Your task to perform on an android device: open device folders in google photos Image 0: 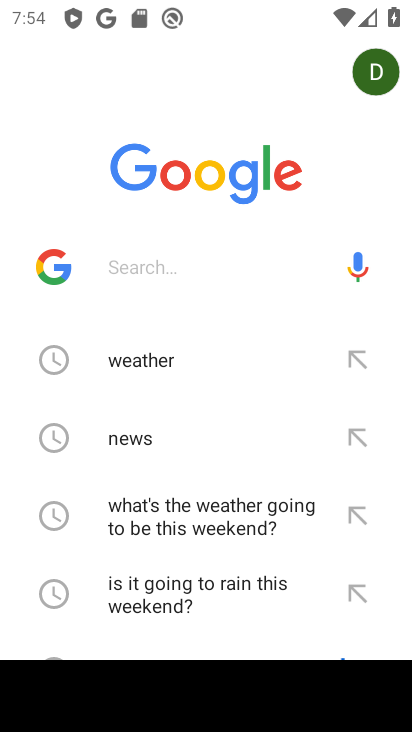
Step 0: press back button
Your task to perform on an android device: open device folders in google photos Image 1: 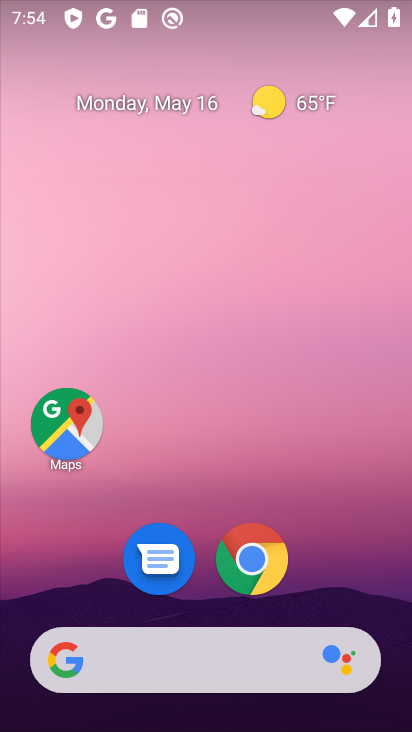
Step 1: drag from (190, 532) to (278, 97)
Your task to perform on an android device: open device folders in google photos Image 2: 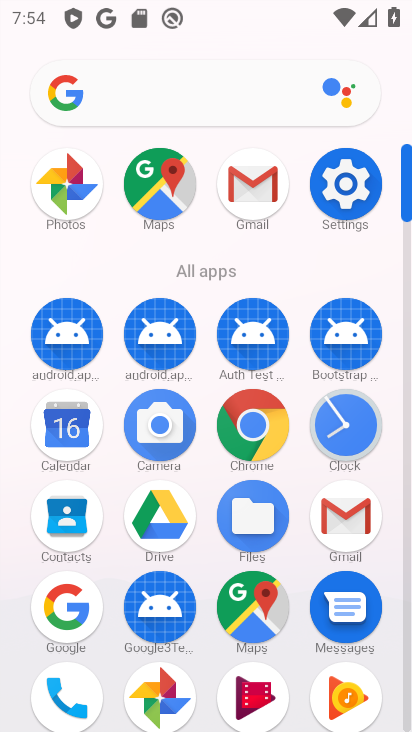
Step 2: click (163, 698)
Your task to perform on an android device: open device folders in google photos Image 3: 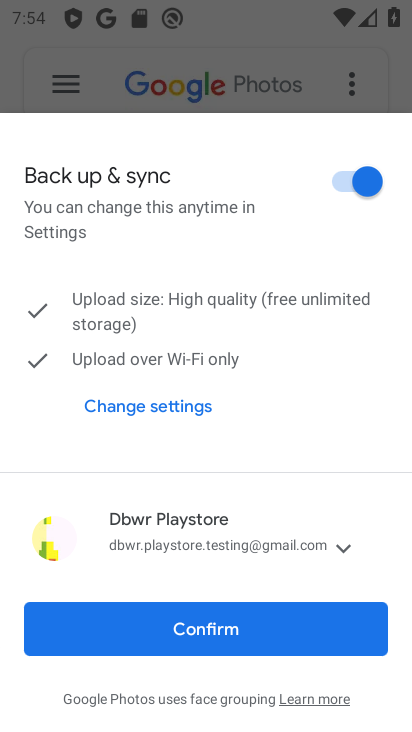
Step 3: click (174, 635)
Your task to perform on an android device: open device folders in google photos Image 4: 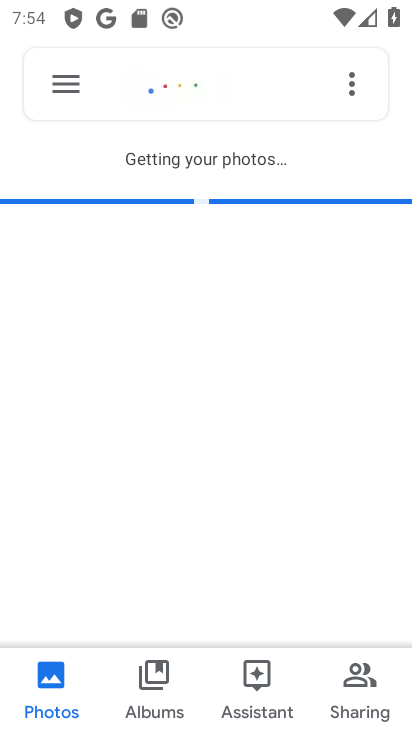
Step 4: click (67, 77)
Your task to perform on an android device: open device folders in google photos Image 5: 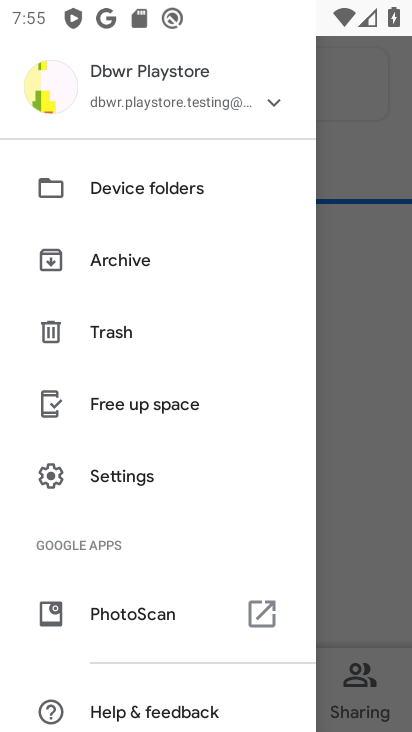
Step 5: click (156, 184)
Your task to perform on an android device: open device folders in google photos Image 6: 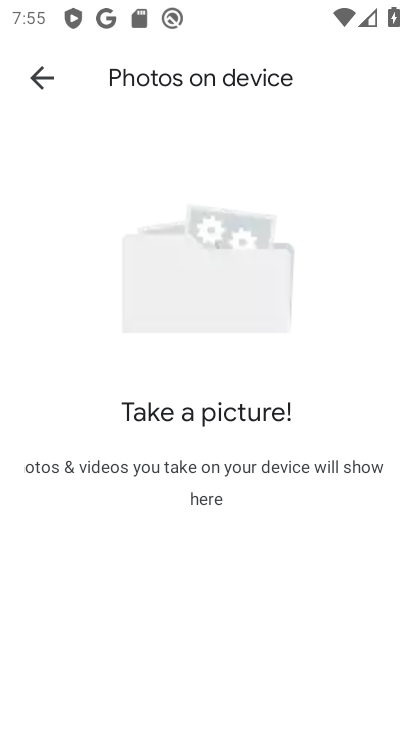
Step 6: task complete